Your task to perform on an android device: toggle notifications settings in the gmail app Image 0: 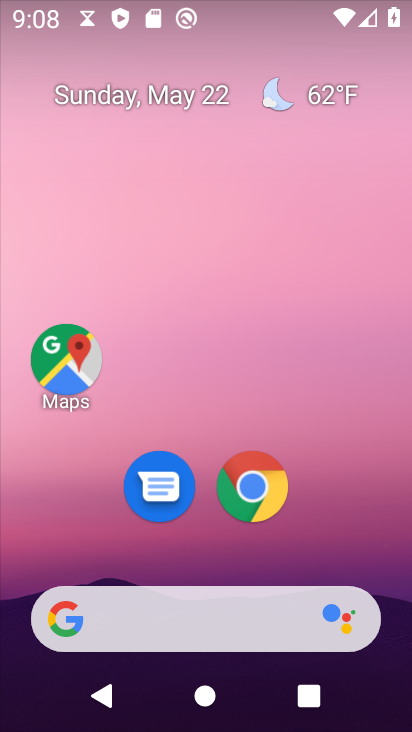
Step 0: press home button
Your task to perform on an android device: toggle notifications settings in the gmail app Image 1: 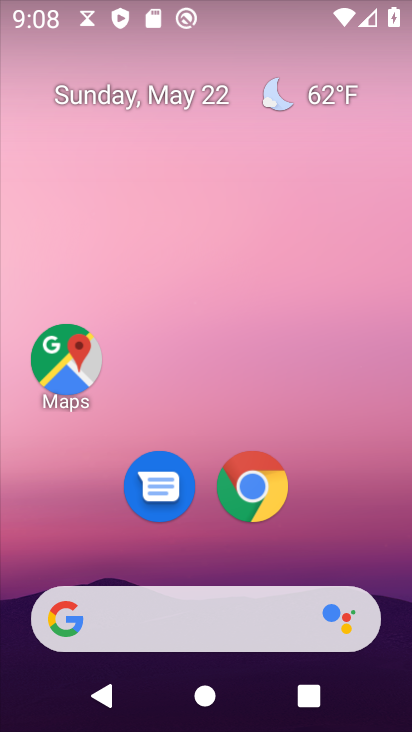
Step 1: drag from (205, 558) to (191, 41)
Your task to perform on an android device: toggle notifications settings in the gmail app Image 2: 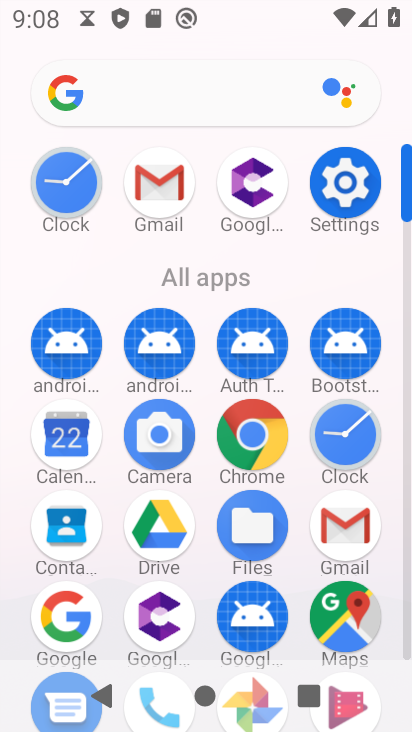
Step 2: click (158, 170)
Your task to perform on an android device: toggle notifications settings in the gmail app Image 3: 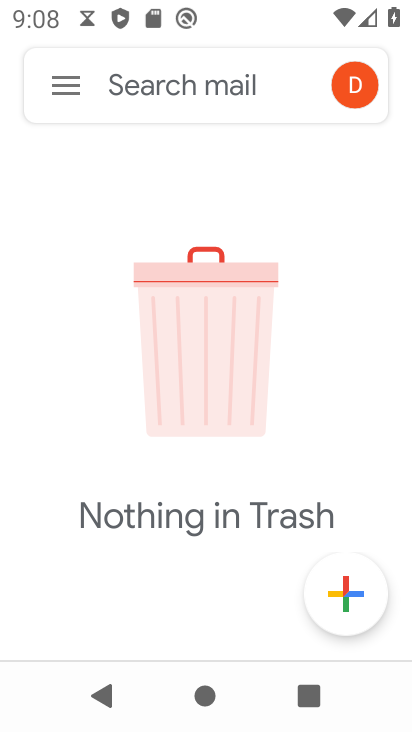
Step 3: click (56, 84)
Your task to perform on an android device: toggle notifications settings in the gmail app Image 4: 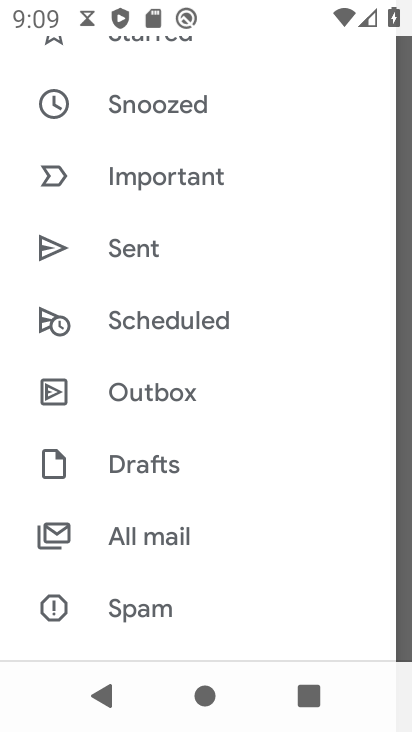
Step 4: drag from (191, 581) to (223, 168)
Your task to perform on an android device: toggle notifications settings in the gmail app Image 5: 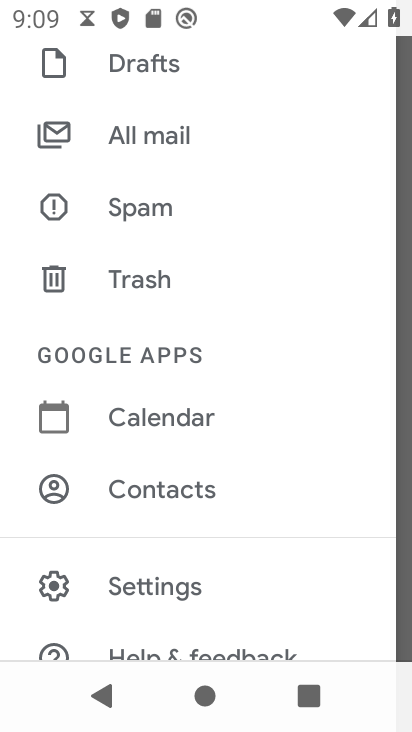
Step 5: click (216, 573)
Your task to perform on an android device: toggle notifications settings in the gmail app Image 6: 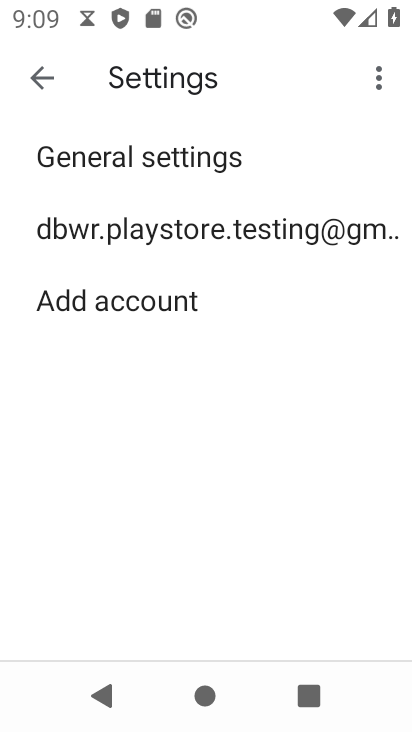
Step 6: click (253, 148)
Your task to perform on an android device: toggle notifications settings in the gmail app Image 7: 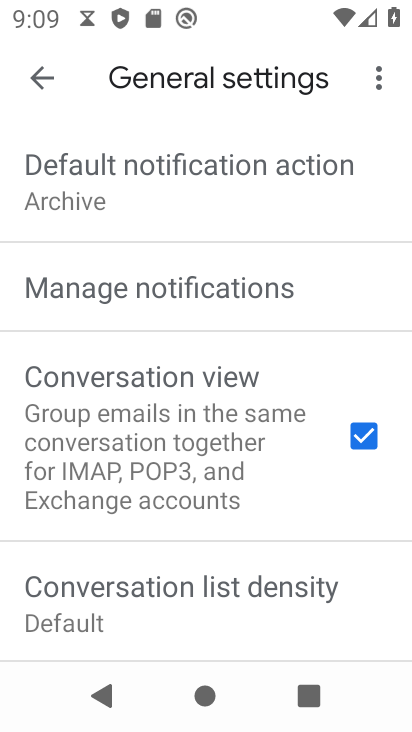
Step 7: click (185, 307)
Your task to perform on an android device: toggle notifications settings in the gmail app Image 8: 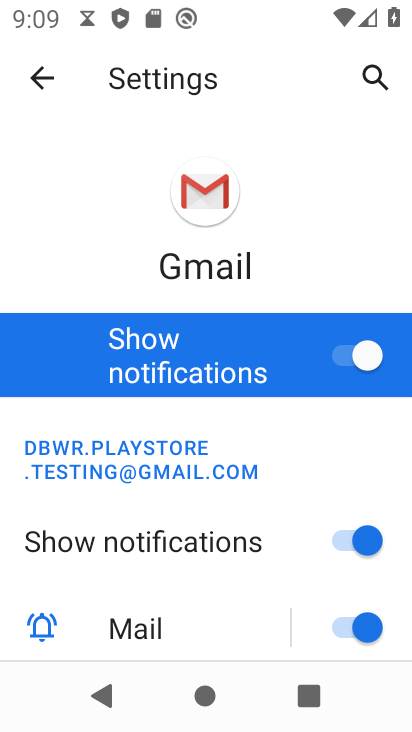
Step 8: task complete